Your task to perform on an android device: Go to Google maps Image 0: 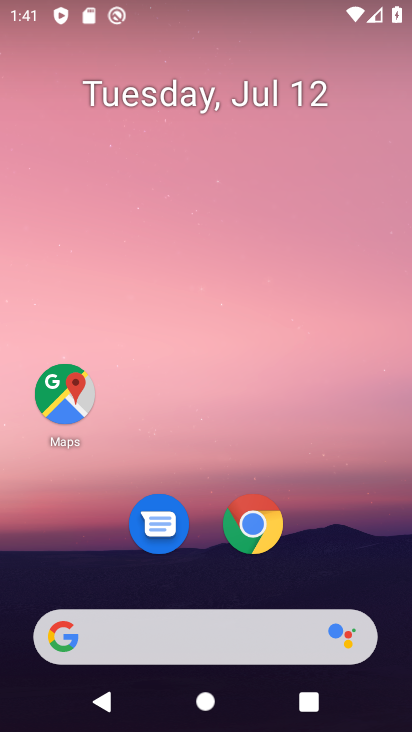
Step 0: click (64, 392)
Your task to perform on an android device: Go to Google maps Image 1: 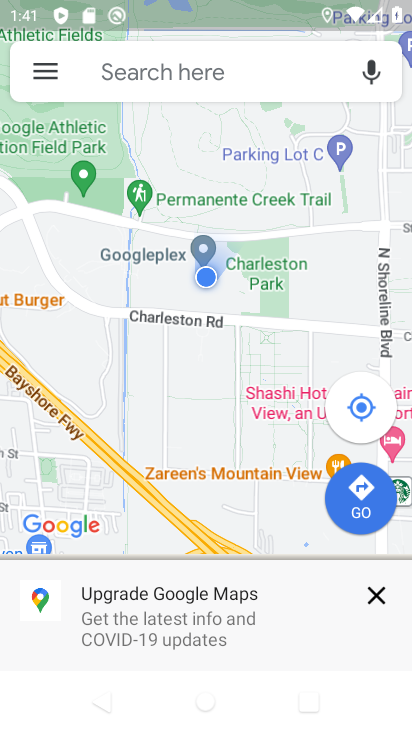
Step 1: task complete